Your task to perform on an android device: delete location history Image 0: 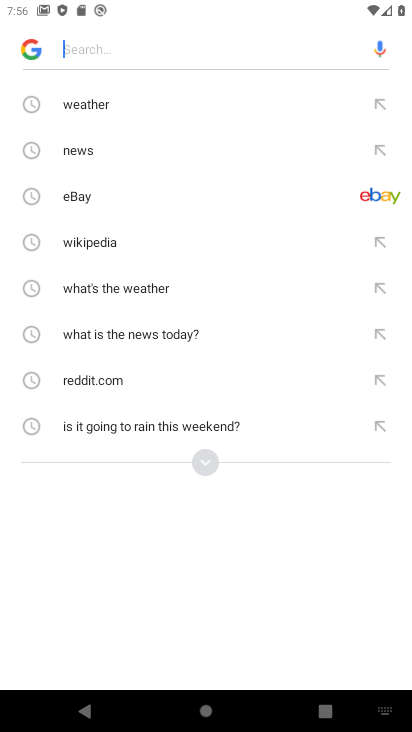
Step 0: press home button
Your task to perform on an android device: delete location history Image 1: 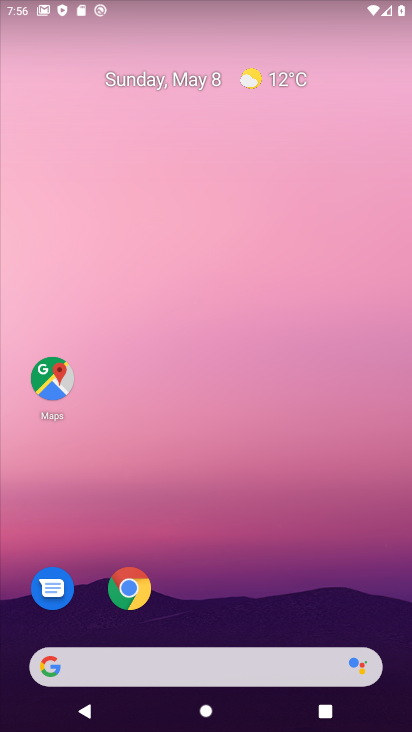
Step 1: drag from (259, 549) to (262, 489)
Your task to perform on an android device: delete location history Image 2: 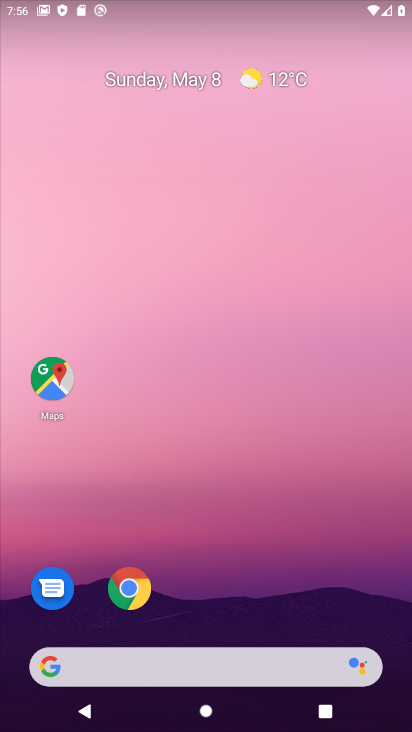
Step 2: click (53, 389)
Your task to perform on an android device: delete location history Image 3: 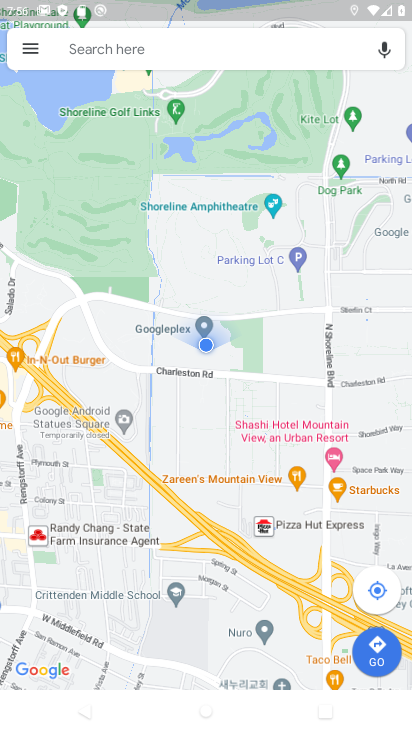
Step 3: click (34, 49)
Your task to perform on an android device: delete location history Image 4: 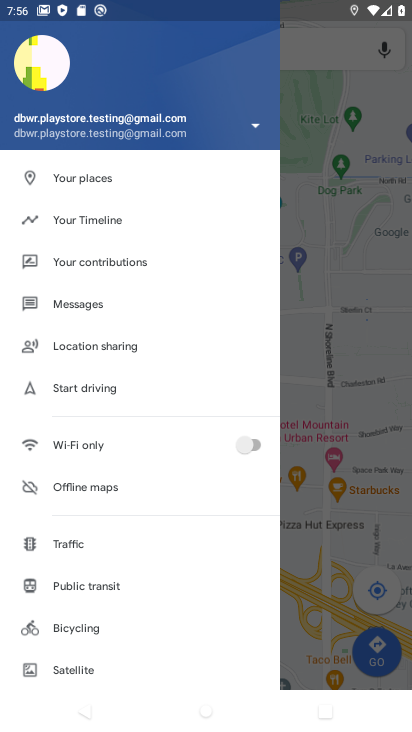
Step 4: click (99, 219)
Your task to perform on an android device: delete location history Image 5: 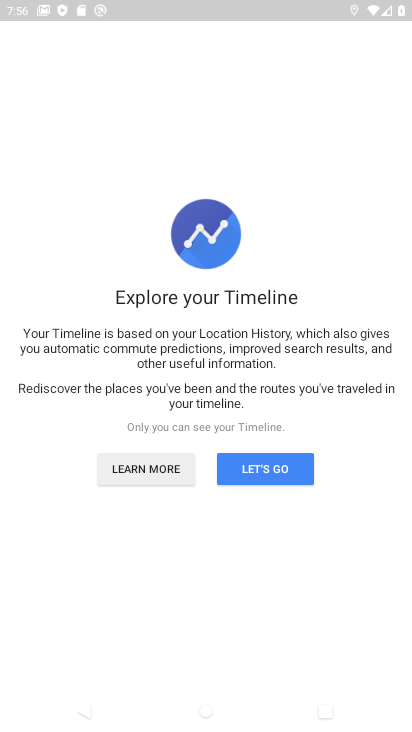
Step 5: click (246, 475)
Your task to perform on an android device: delete location history Image 6: 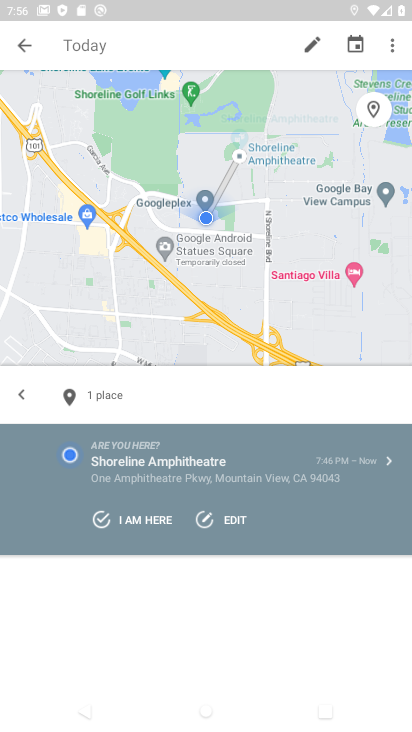
Step 6: click (393, 50)
Your task to perform on an android device: delete location history Image 7: 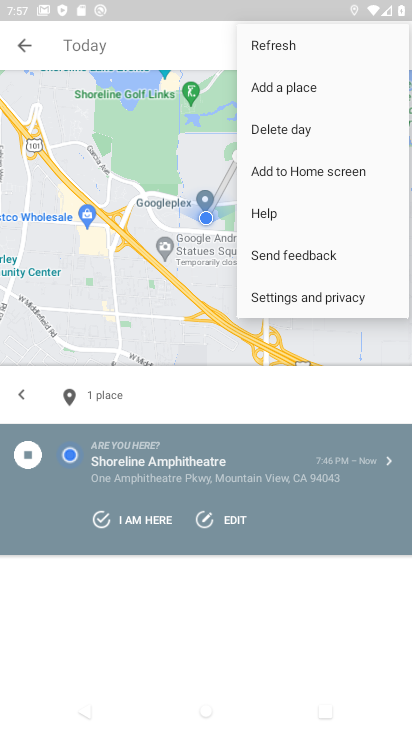
Step 7: click (296, 133)
Your task to perform on an android device: delete location history Image 8: 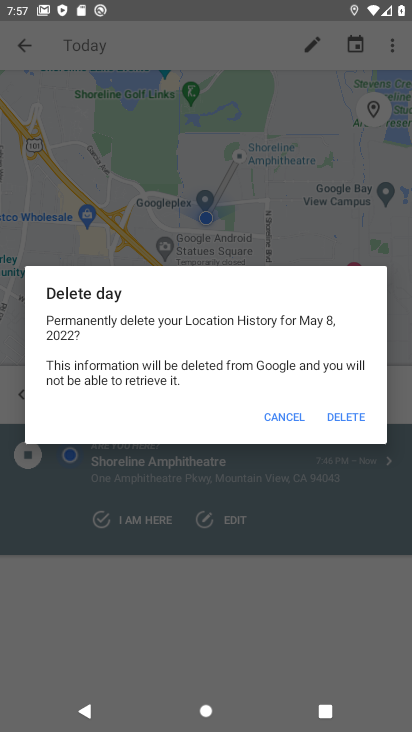
Step 8: click (332, 409)
Your task to perform on an android device: delete location history Image 9: 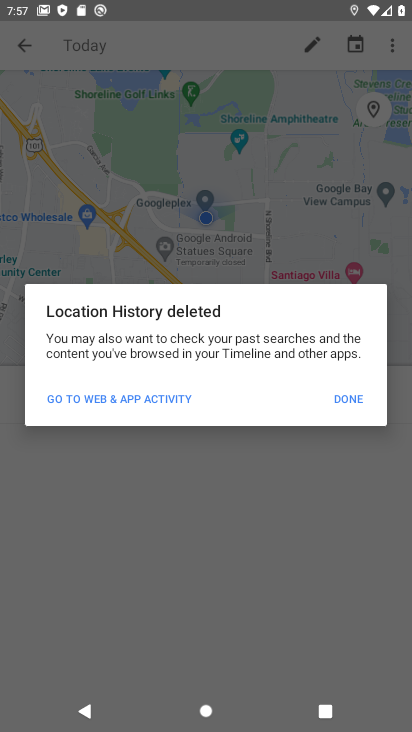
Step 9: click (340, 397)
Your task to perform on an android device: delete location history Image 10: 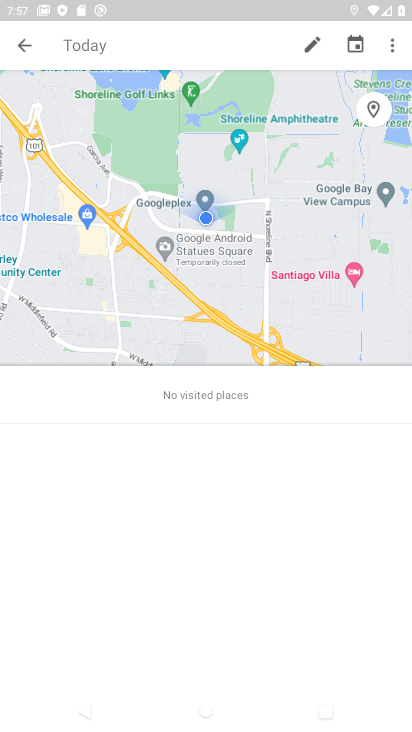
Step 10: task complete